Your task to perform on an android device: check the backup settings in the google photos Image 0: 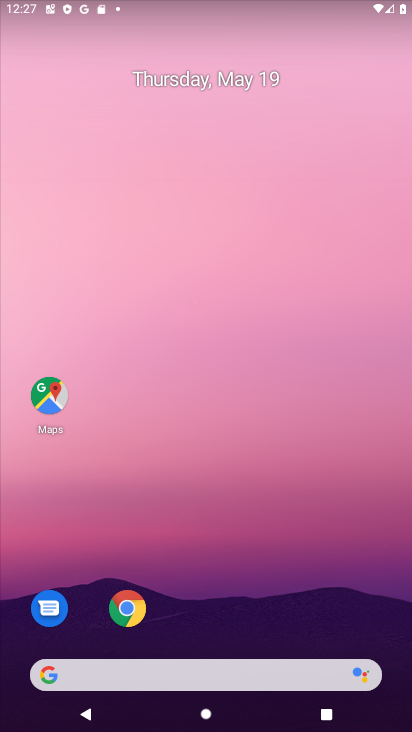
Step 0: drag from (207, 562) to (217, 258)
Your task to perform on an android device: check the backup settings in the google photos Image 1: 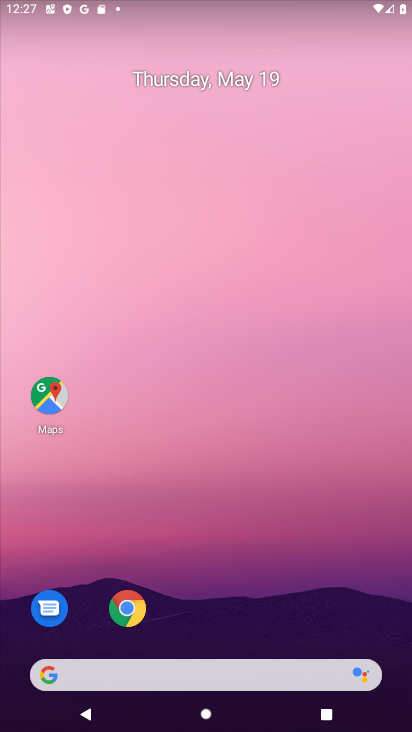
Step 1: drag from (221, 589) to (240, 230)
Your task to perform on an android device: check the backup settings in the google photos Image 2: 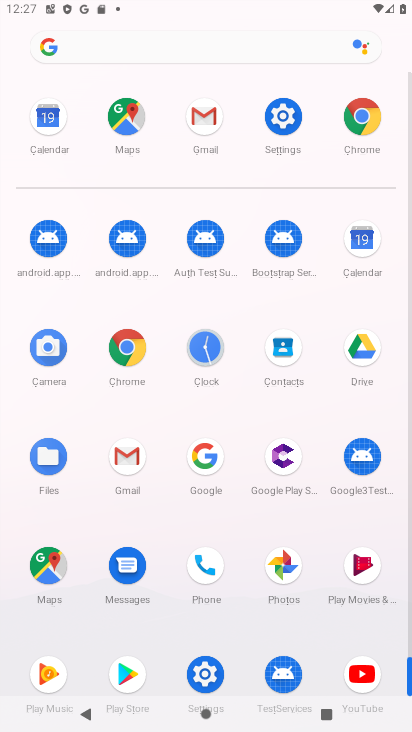
Step 2: click (278, 565)
Your task to perform on an android device: check the backup settings in the google photos Image 3: 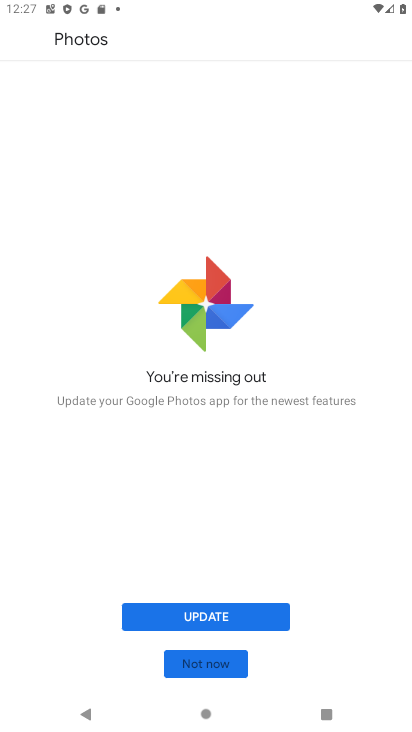
Step 3: click (32, 42)
Your task to perform on an android device: check the backup settings in the google photos Image 4: 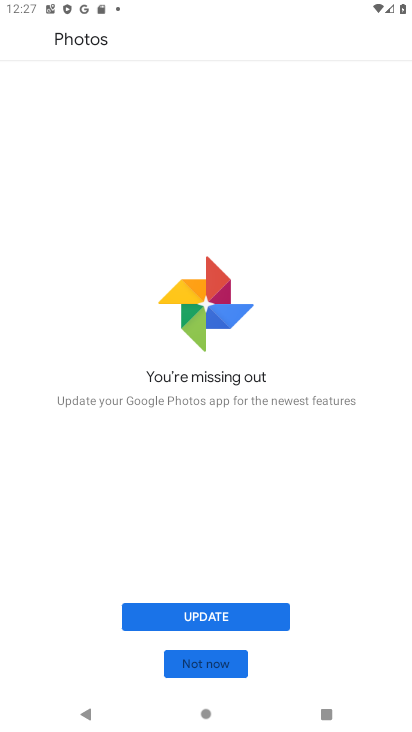
Step 4: click (211, 658)
Your task to perform on an android device: check the backup settings in the google photos Image 5: 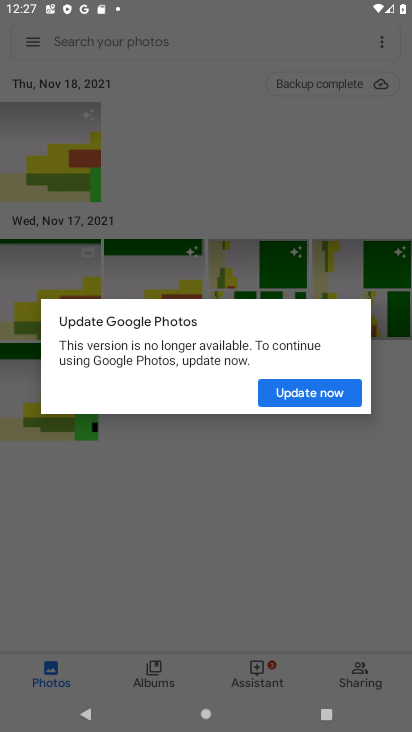
Step 5: click (280, 390)
Your task to perform on an android device: check the backup settings in the google photos Image 6: 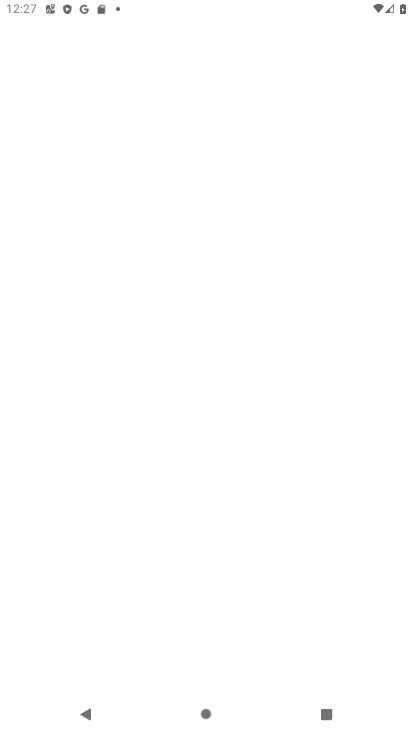
Step 6: press back button
Your task to perform on an android device: check the backup settings in the google photos Image 7: 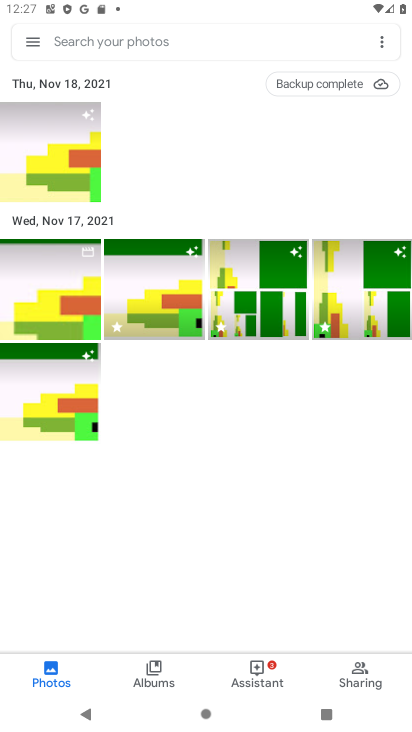
Step 7: click (33, 36)
Your task to perform on an android device: check the backup settings in the google photos Image 8: 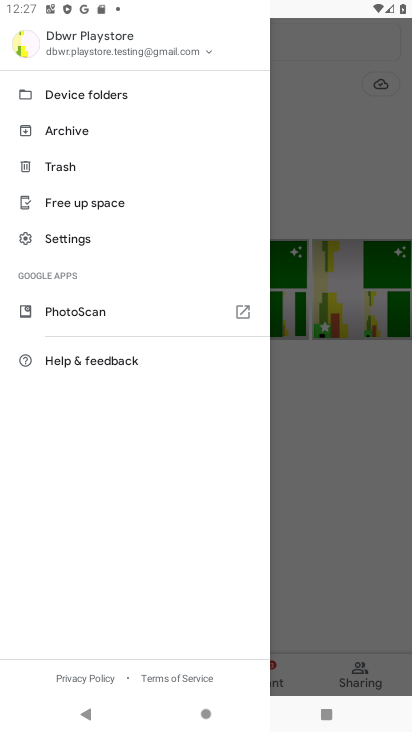
Step 8: drag from (44, 594) to (366, 345)
Your task to perform on an android device: check the backup settings in the google photos Image 9: 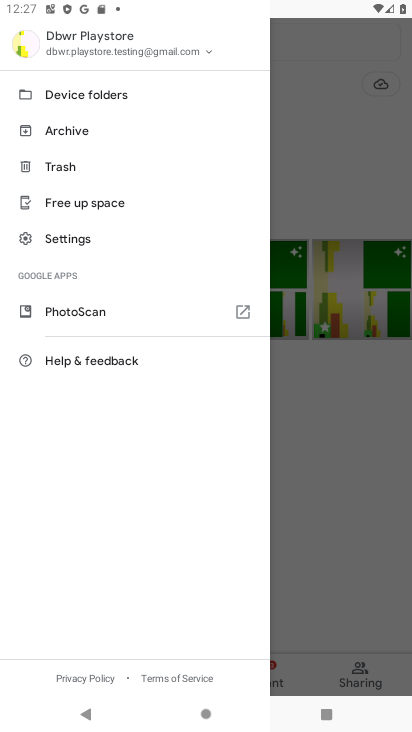
Step 9: click (70, 237)
Your task to perform on an android device: check the backup settings in the google photos Image 10: 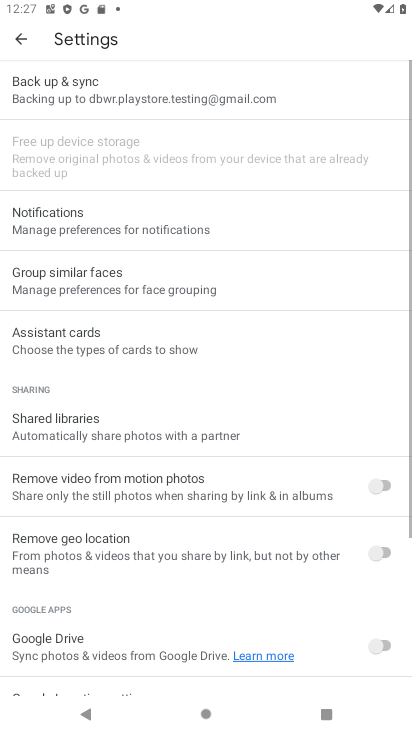
Step 10: click (90, 95)
Your task to perform on an android device: check the backup settings in the google photos Image 11: 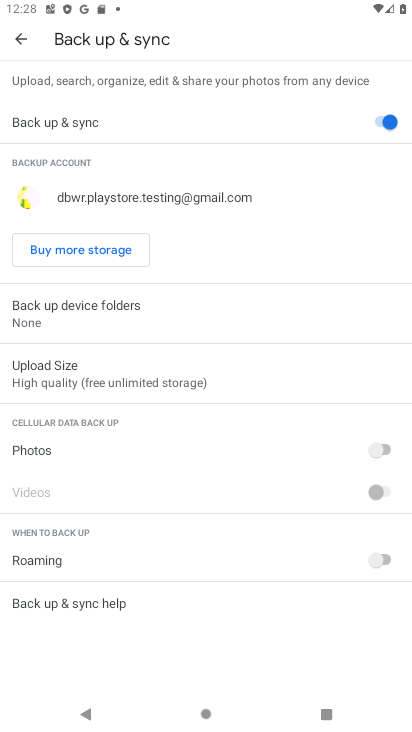
Step 11: task complete